Your task to perform on an android device: What's the weather today? Image 0: 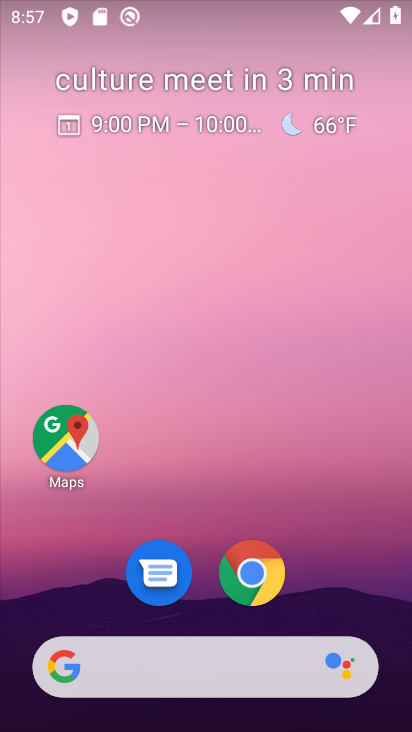
Step 0: click (304, 123)
Your task to perform on an android device: What's the weather today? Image 1: 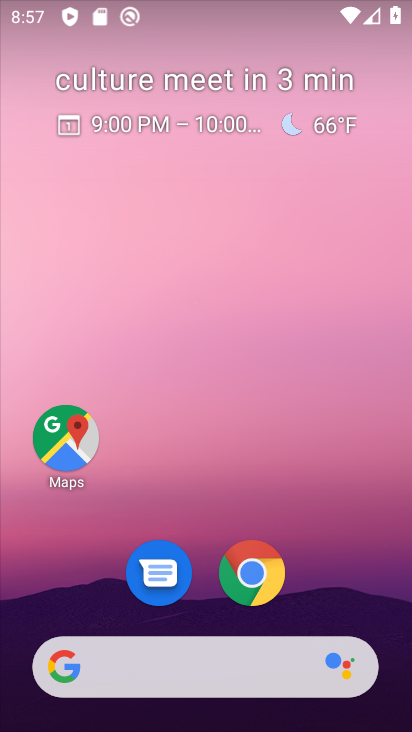
Step 1: click (294, 125)
Your task to perform on an android device: What's the weather today? Image 2: 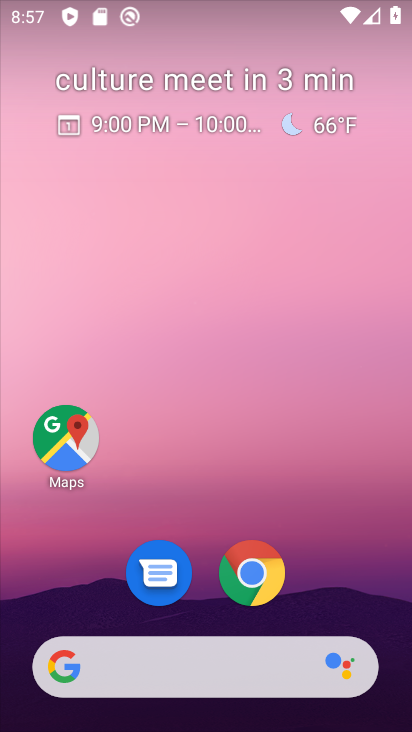
Step 2: click (294, 125)
Your task to perform on an android device: What's the weather today? Image 3: 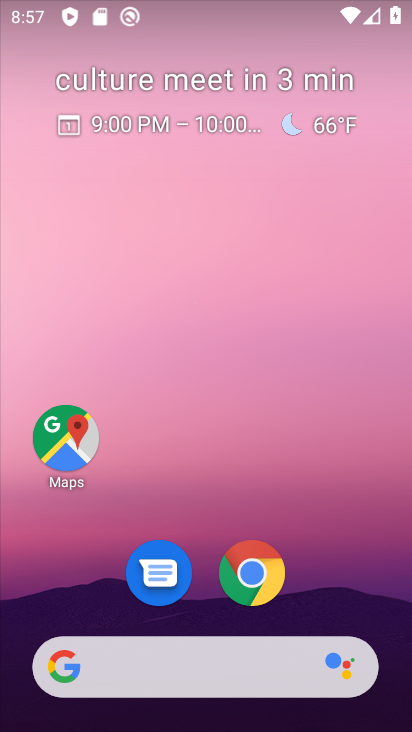
Step 3: click (165, 680)
Your task to perform on an android device: What's the weather today? Image 4: 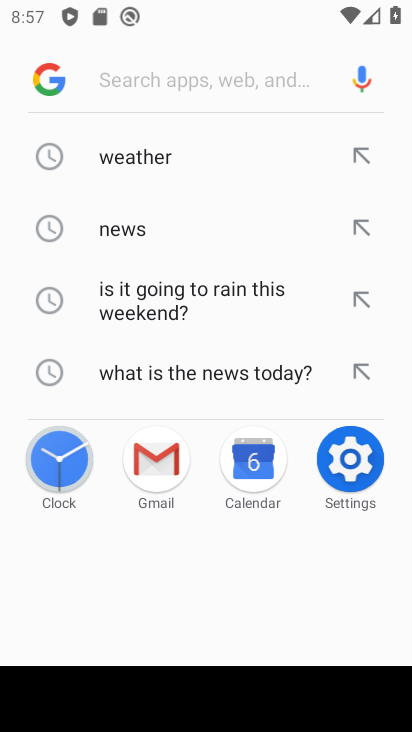
Step 4: click (143, 162)
Your task to perform on an android device: What's the weather today? Image 5: 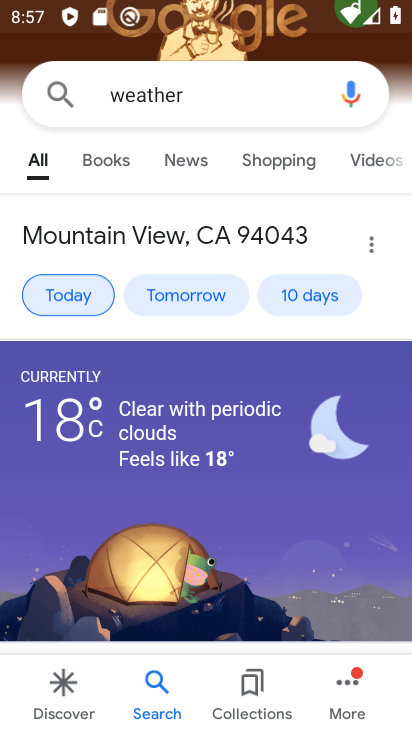
Step 5: task complete